Your task to perform on an android device: check battery use Image 0: 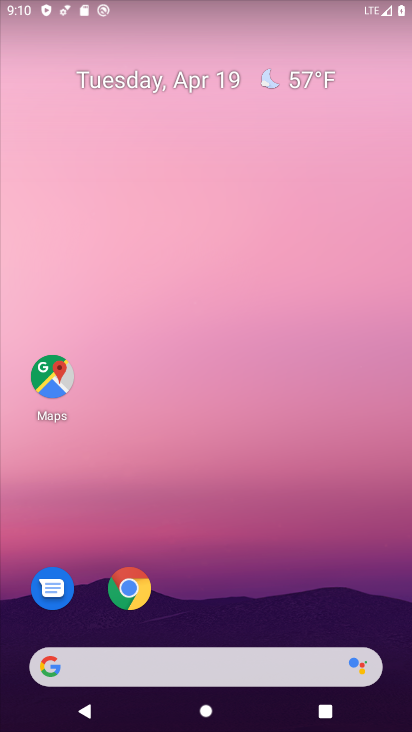
Step 0: drag from (235, 614) to (226, 75)
Your task to perform on an android device: check battery use Image 1: 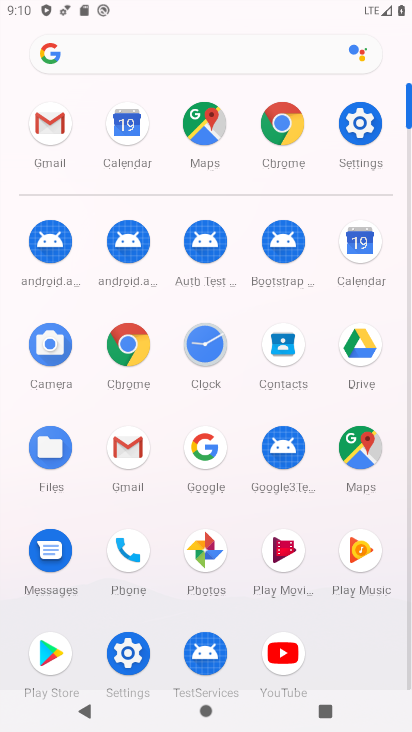
Step 1: click (349, 142)
Your task to perform on an android device: check battery use Image 2: 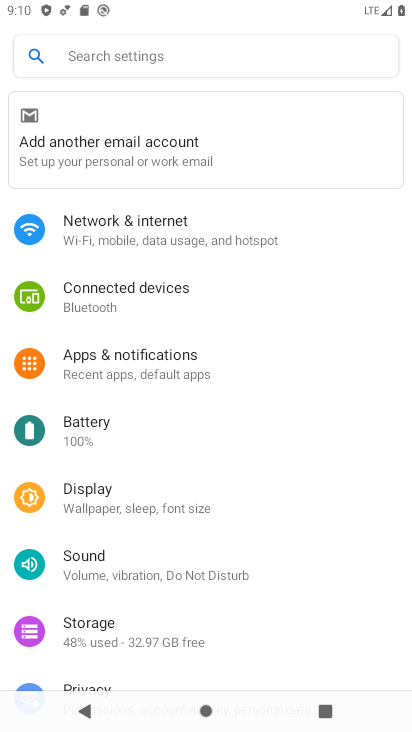
Step 2: click (132, 423)
Your task to perform on an android device: check battery use Image 3: 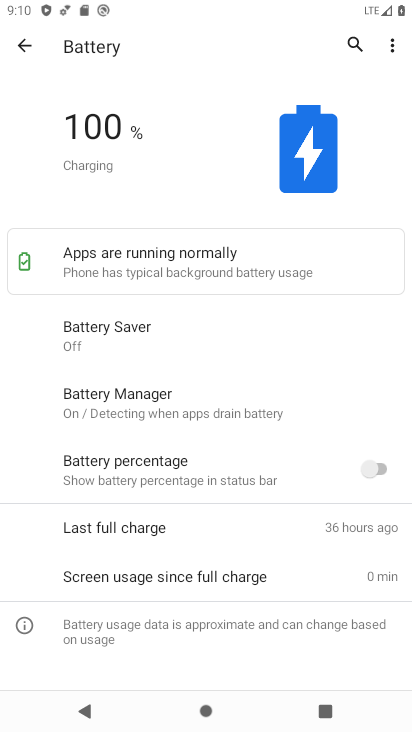
Step 3: click (388, 43)
Your task to perform on an android device: check battery use Image 4: 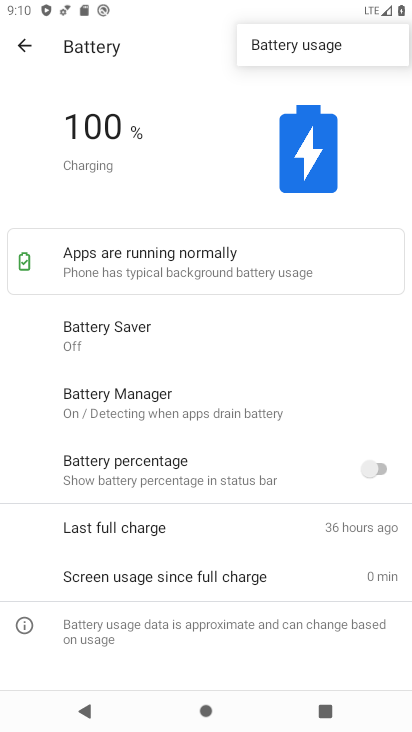
Step 4: click (317, 51)
Your task to perform on an android device: check battery use Image 5: 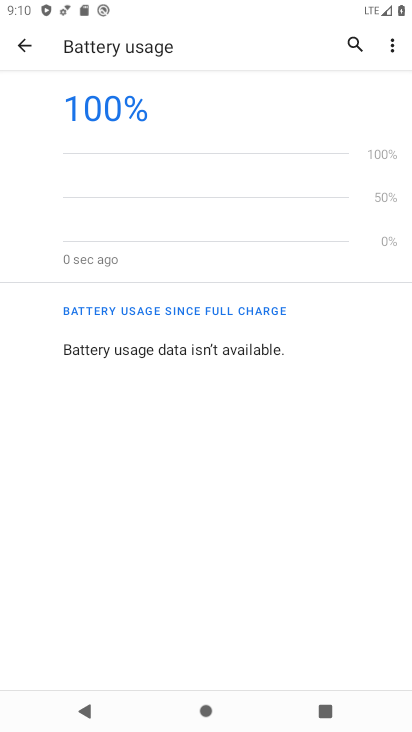
Step 5: task complete